Your task to perform on an android device: Show me popular games on the Play Store Image 0: 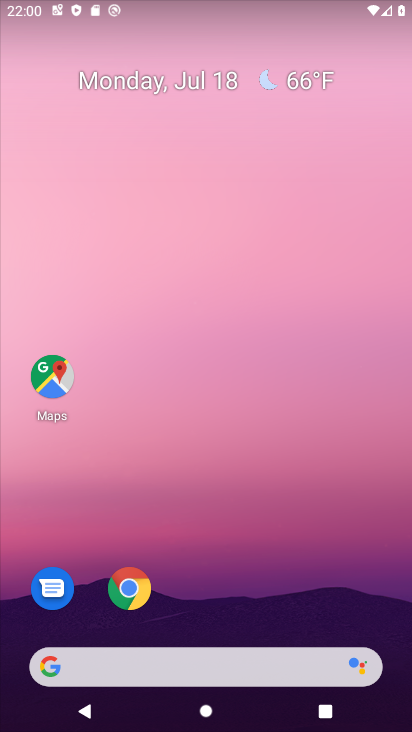
Step 0: drag from (204, 665) to (292, 107)
Your task to perform on an android device: Show me popular games on the Play Store Image 1: 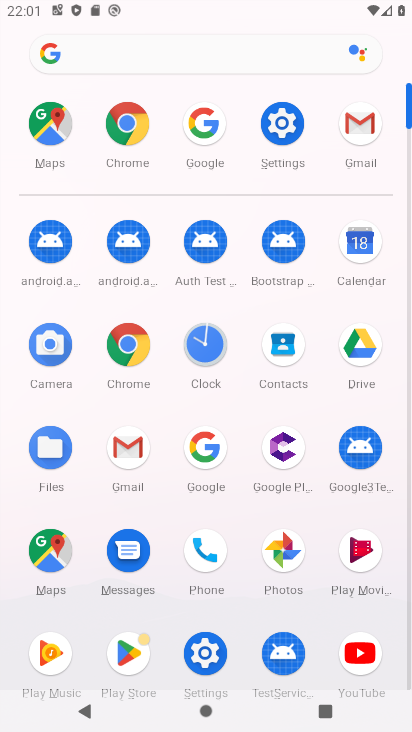
Step 1: click (126, 658)
Your task to perform on an android device: Show me popular games on the Play Store Image 2: 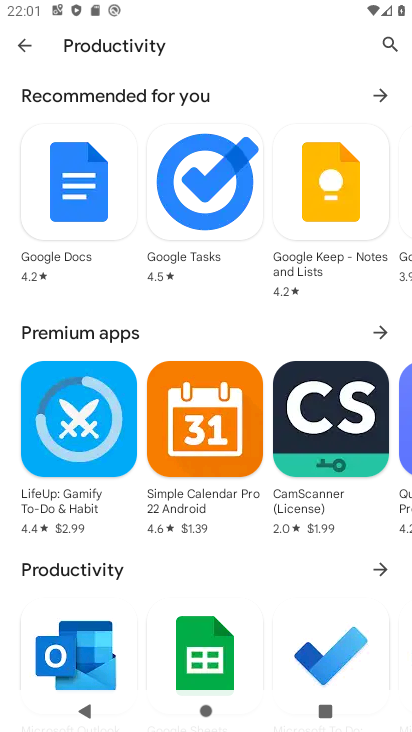
Step 2: click (20, 45)
Your task to perform on an android device: Show me popular games on the Play Store Image 3: 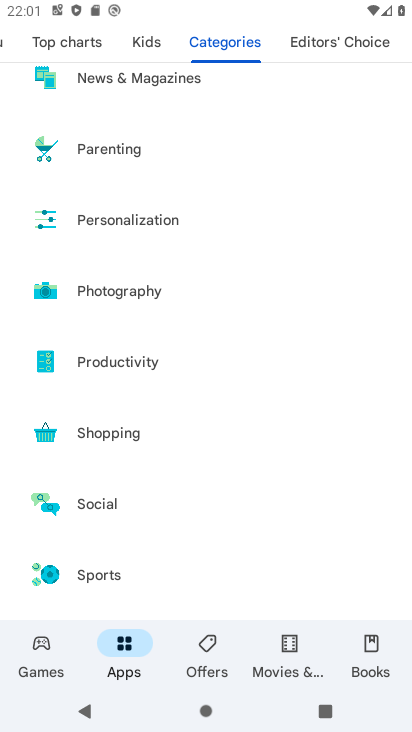
Step 3: click (50, 668)
Your task to perform on an android device: Show me popular games on the Play Store Image 4: 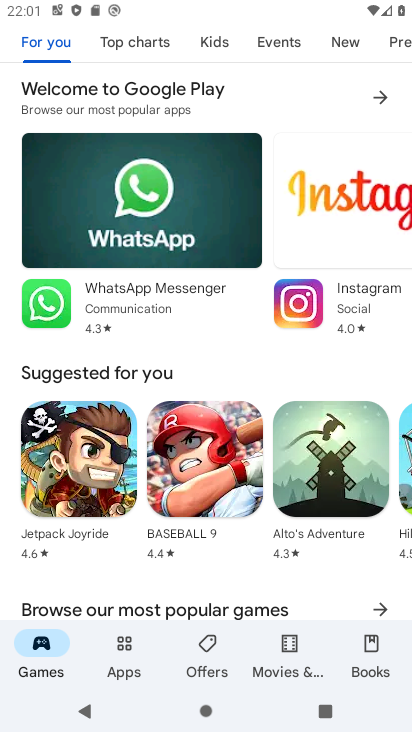
Step 4: drag from (232, 379) to (331, 40)
Your task to perform on an android device: Show me popular games on the Play Store Image 5: 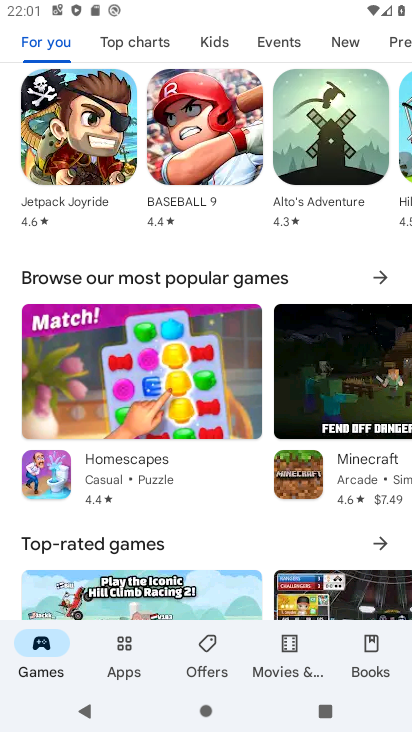
Step 5: click (377, 279)
Your task to perform on an android device: Show me popular games on the Play Store Image 6: 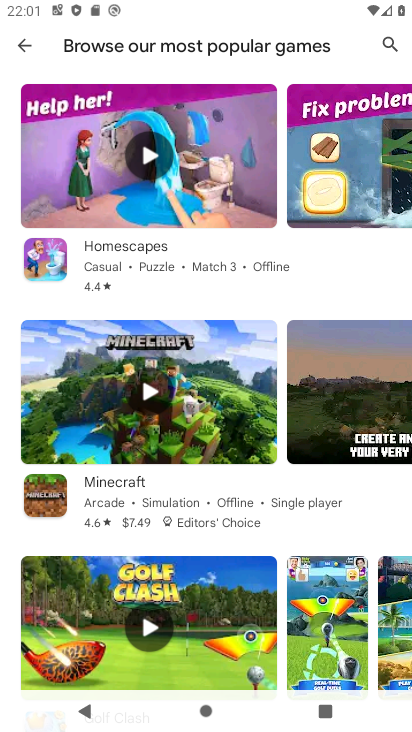
Step 6: task complete